Your task to perform on an android device: Go to Yahoo.com Image 0: 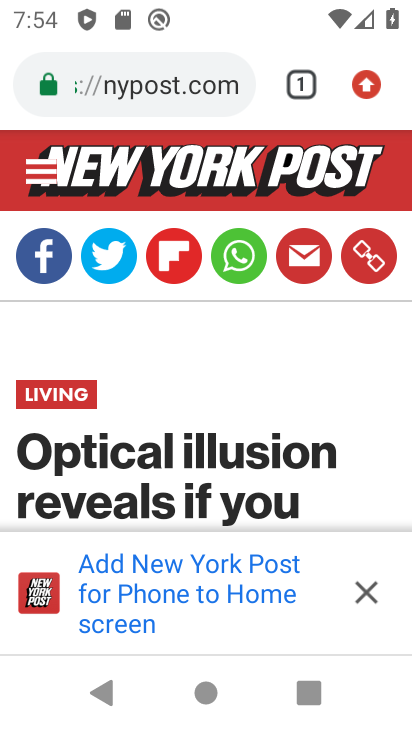
Step 0: click (243, 88)
Your task to perform on an android device: Go to Yahoo.com Image 1: 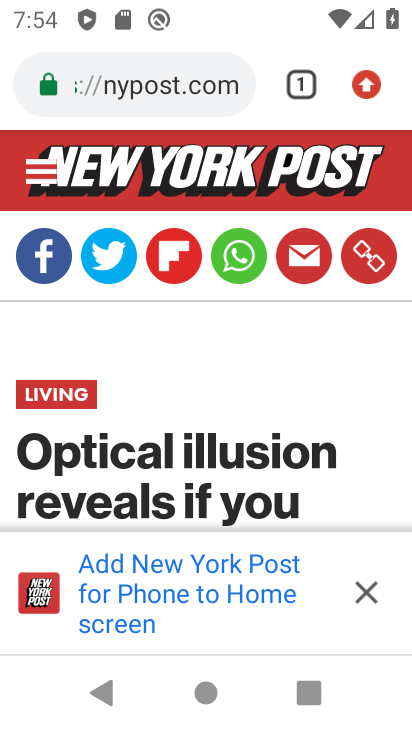
Step 1: click (153, 69)
Your task to perform on an android device: Go to Yahoo.com Image 2: 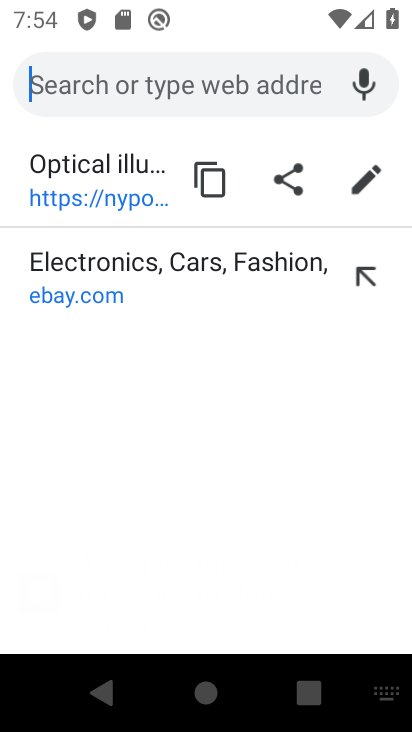
Step 2: type "yahoo.com"
Your task to perform on an android device: Go to Yahoo.com Image 3: 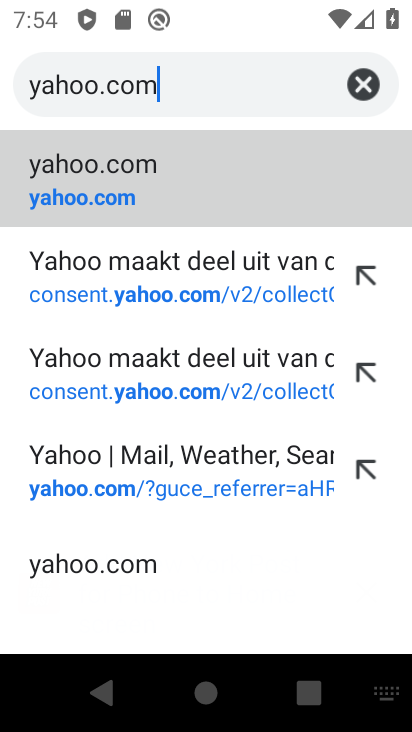
Step 3: click (193, 208)
Your task to perform on an android device: Go to Yahoo.com Image 4: 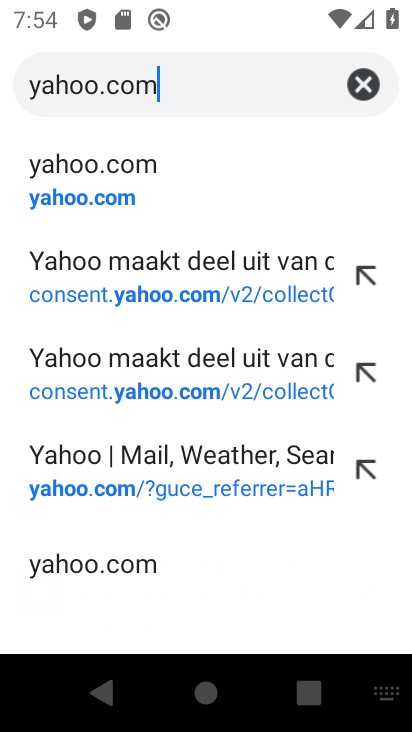
Step 4: click (193, 208)
Your task to perform on an android device: Go to Yahoo.com Image 5: 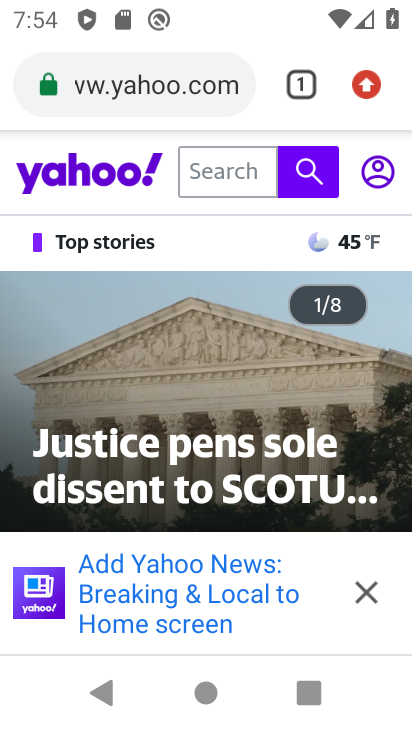
Step 5: task complete